Your task to perform on an android device: Open calendar and show me the second week of next month Image 0: 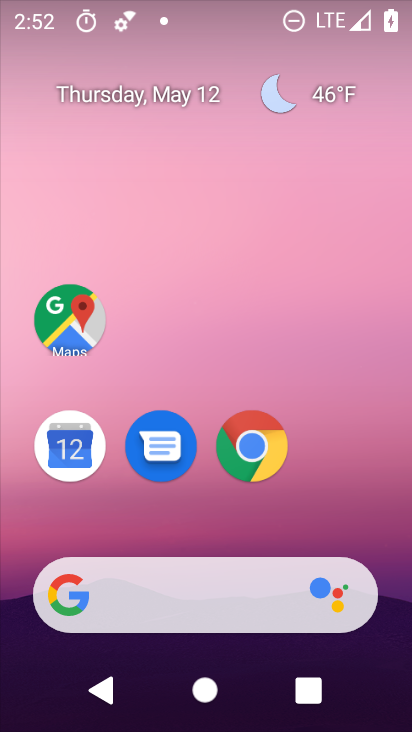
Step 0: drag from (208, 512) to (214, 175)
Your task to perform on an android device: Open calendar and show me the second week of next month Image 1: 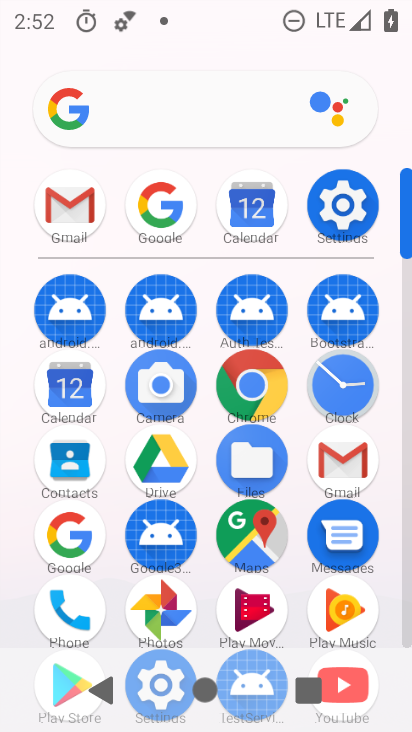
Step 1: click (267, 211)
Your task to perform on an android device: Open calendar and show me the second week of next month Image 2: 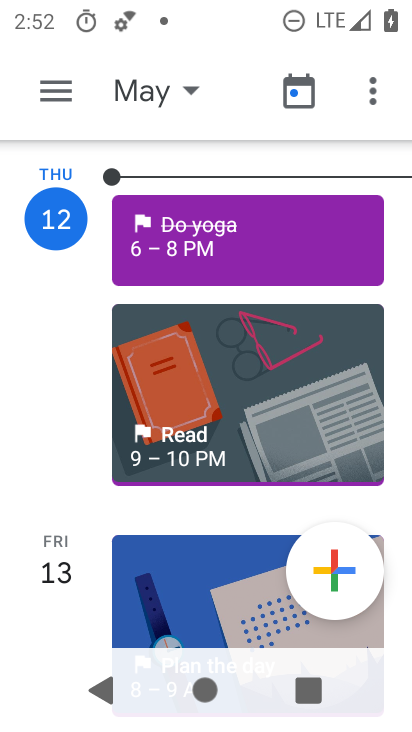
Step 2: click (174, 82)
Your task to perform on an android device: Open calendar and show me the second week of next month Image 3: 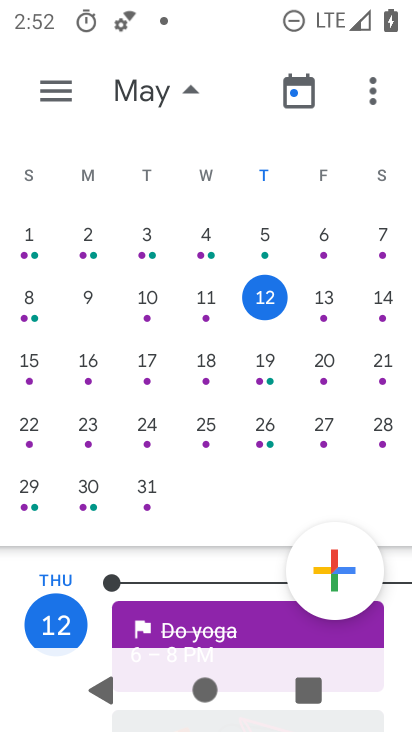
Step 3: drag from (333, 286) to (36, 293)
Your task to perform on an android device: Open calendar and show me the second week of next month Image 4: 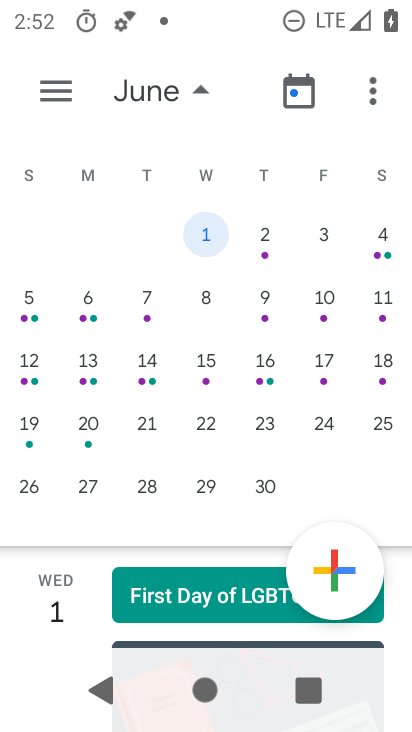
Step 4: click (97, 292)
Your task to perform on an android device: Open calendar and show me the second week of next month Image 5: 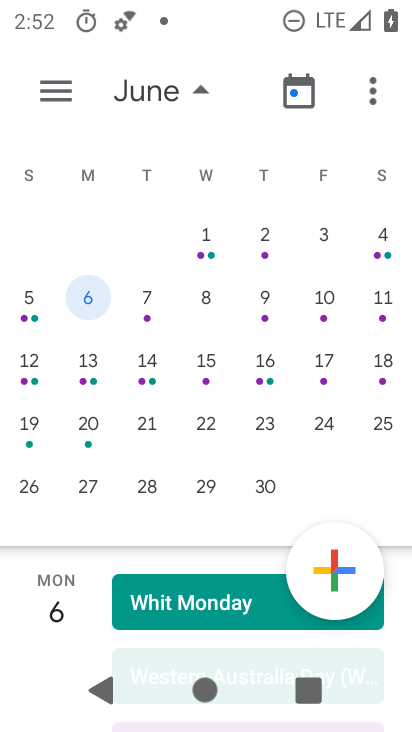
Step 5: click (215, 294)
Your task to perform on an android device: Open calendar and show me the second week of next month Image 6: 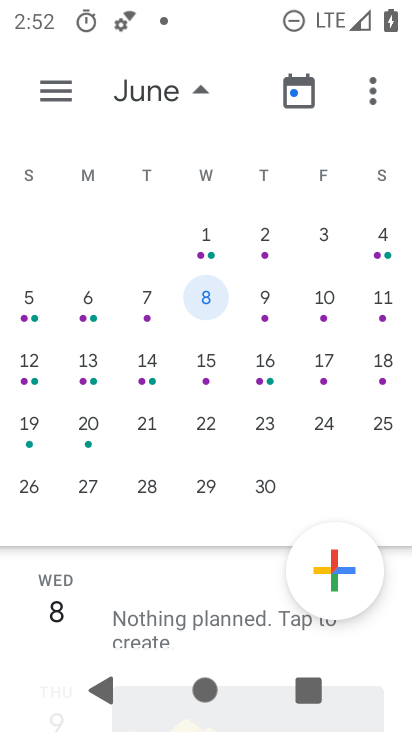
Step 6: task complete